Your task to perform on an android device: install app "Life360: Find Family & Friends" Image 0: 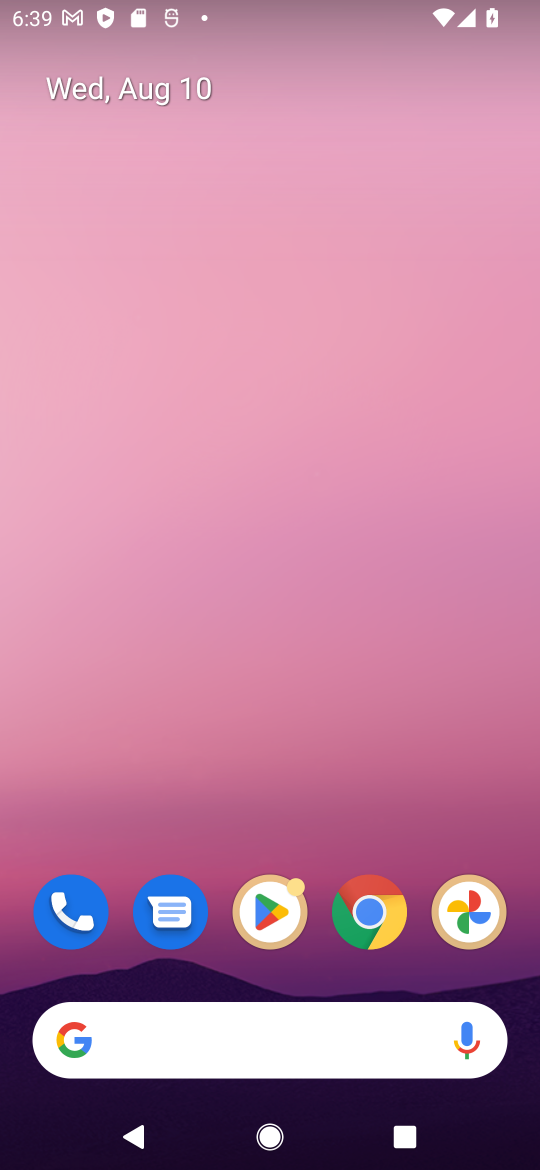
Step 0: drag from (430, 976) to (276, 84)
Your task to perform on an android device: install app "Life360: Find Family & Friends" Image 1: 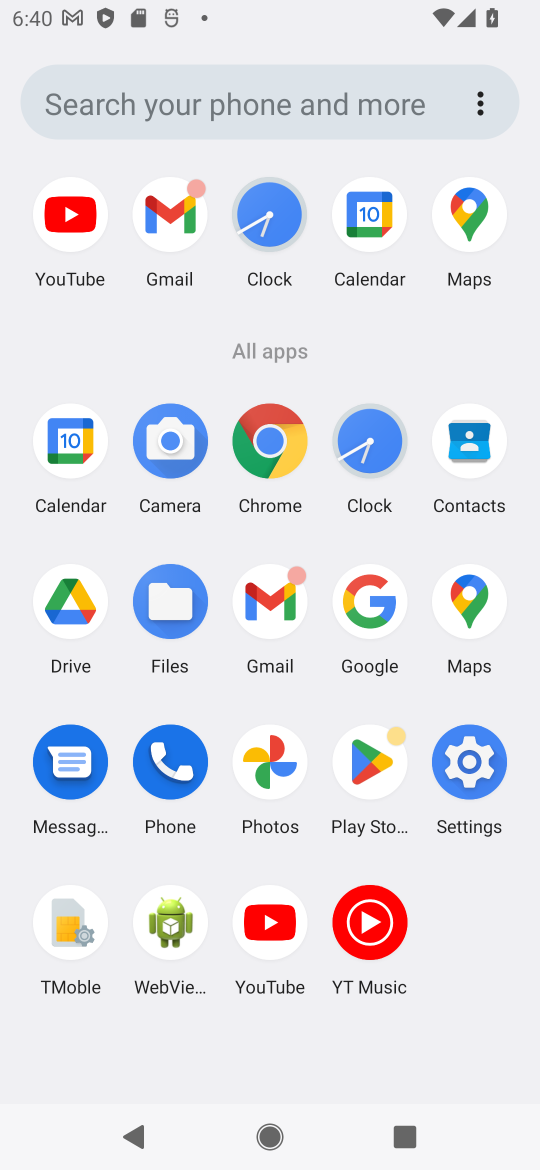
Step 1: click (369, 786)
Your task to perform on an android device: install app "Life360: Find Family & Friends" Image 2: 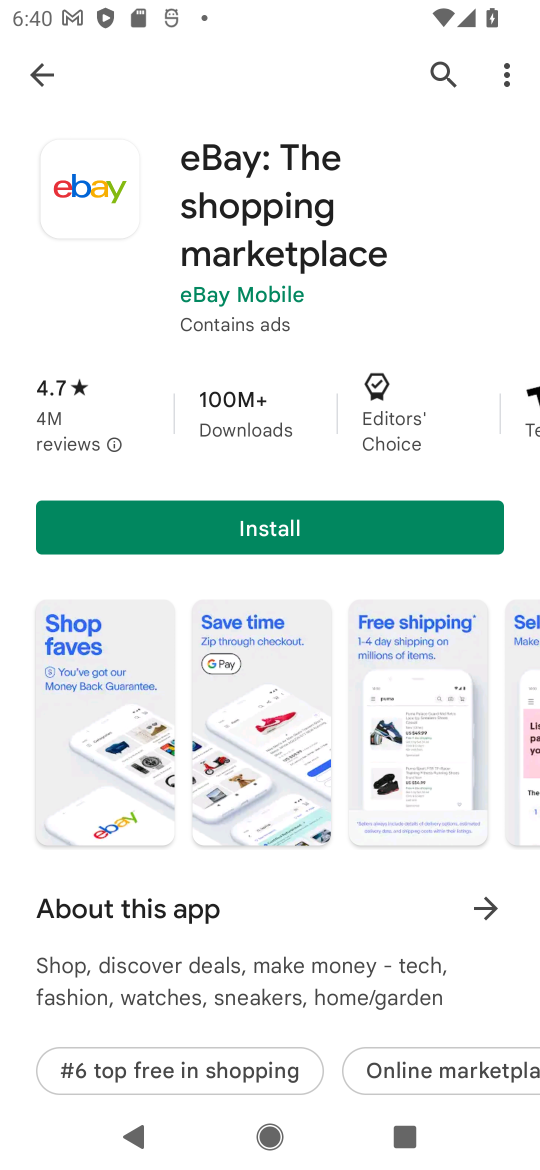
Step 2: press back button
Your task to perform on an android device: install app "Life360: Find Family & Friends" Image 3: 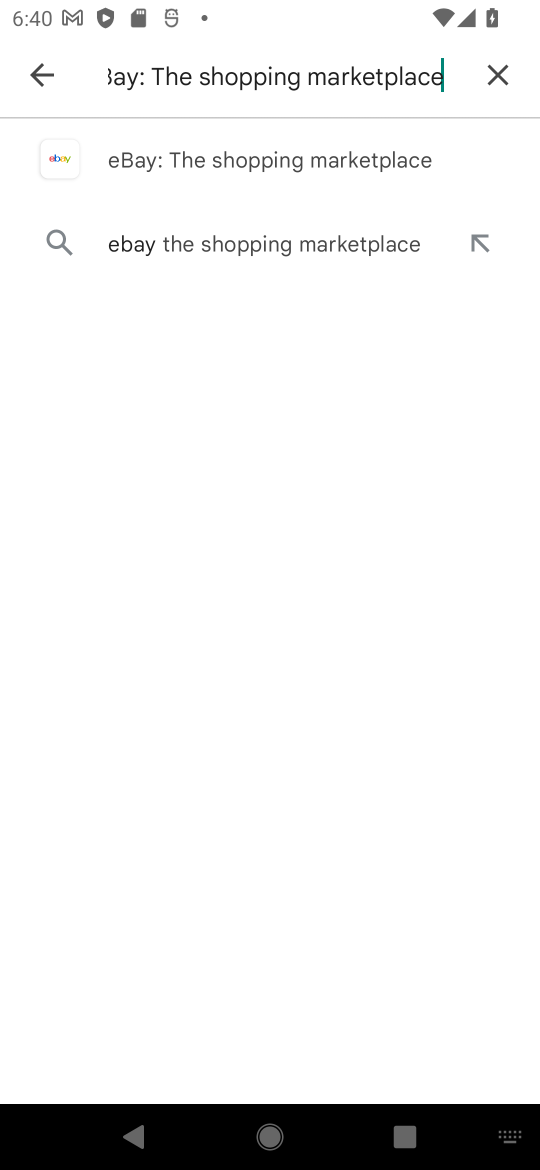
Step 3: click (497, 73)
Your task to perform on an android device: install app "Life360: Find Family & Friends" Image 4: 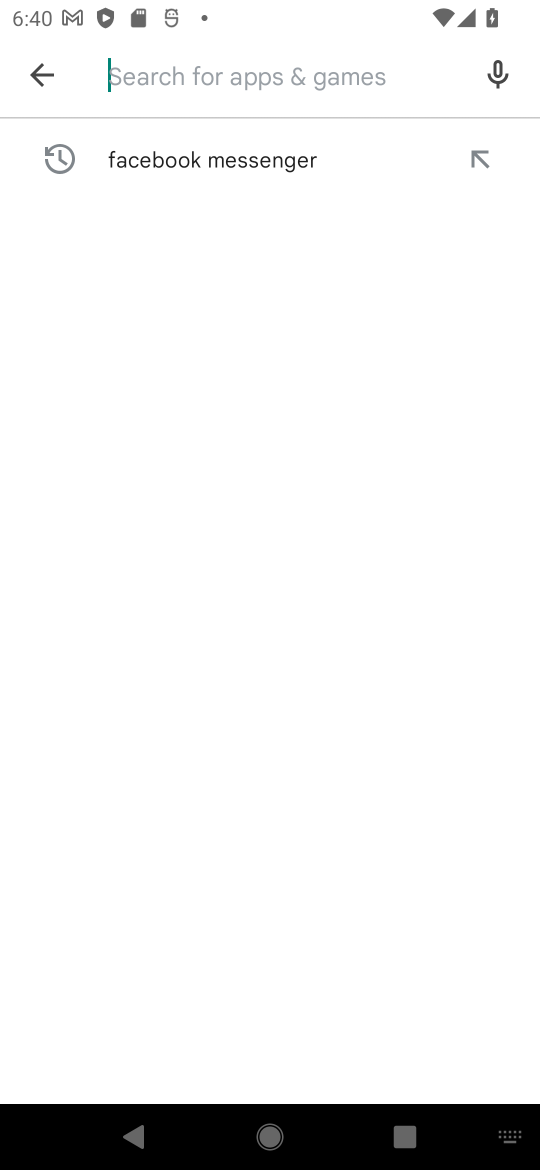
Step 4: click (135, 65)
Your task to perform on an android device: install app "Life360: Find Family & Friends" Image 5: 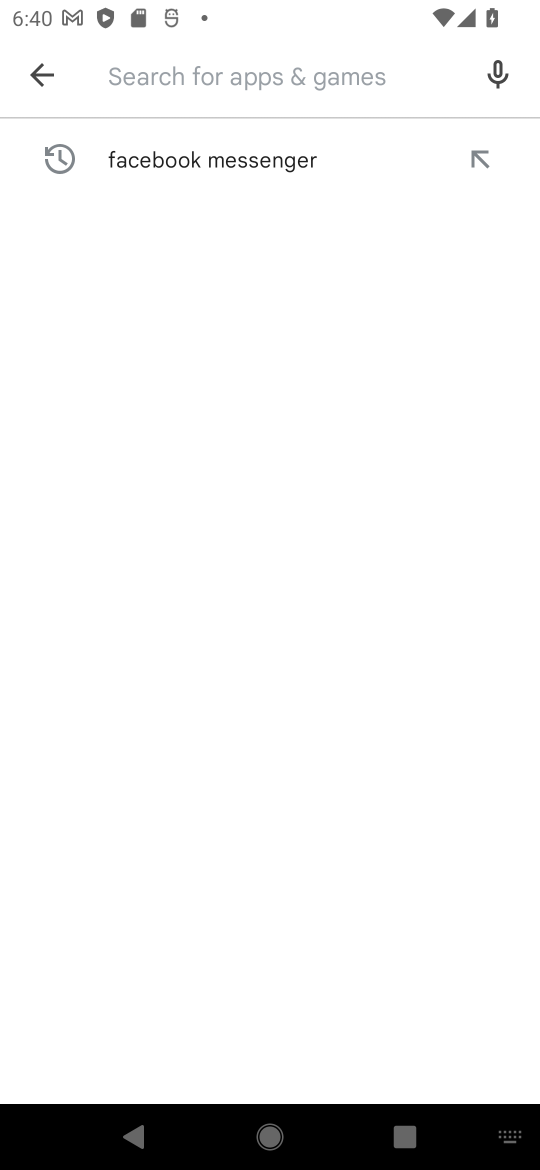
Step 5: type "Life360: Find Family & Friends"
Your task to perform on an android device: install app "Life360: Find Family & Friends" Image 6: 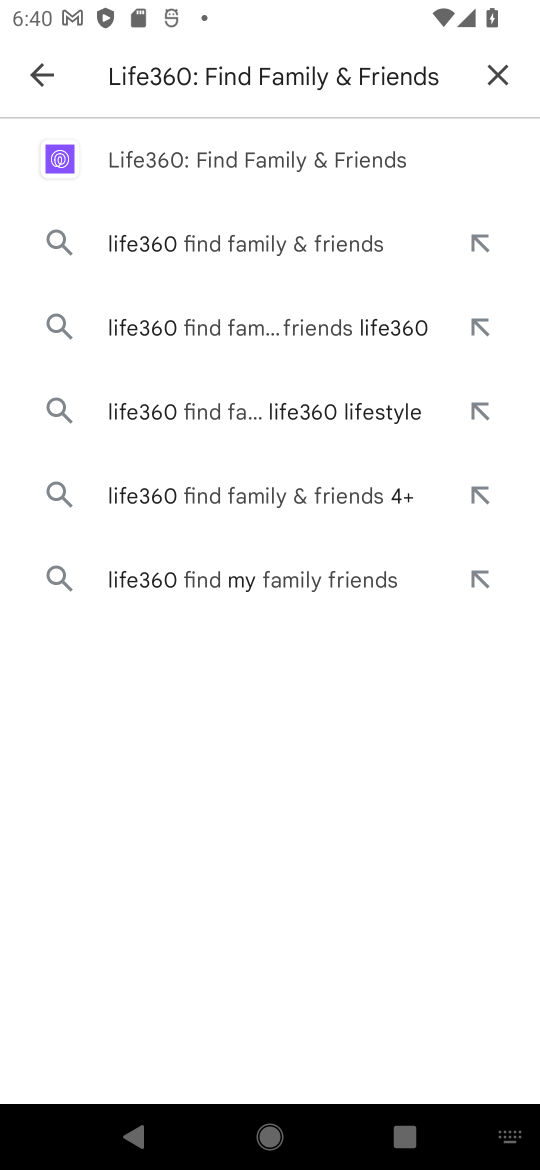
Step 6: click (291, 171)
Your task to perform on an android device: install app "Life360: Find Family & Friends" Image 7: 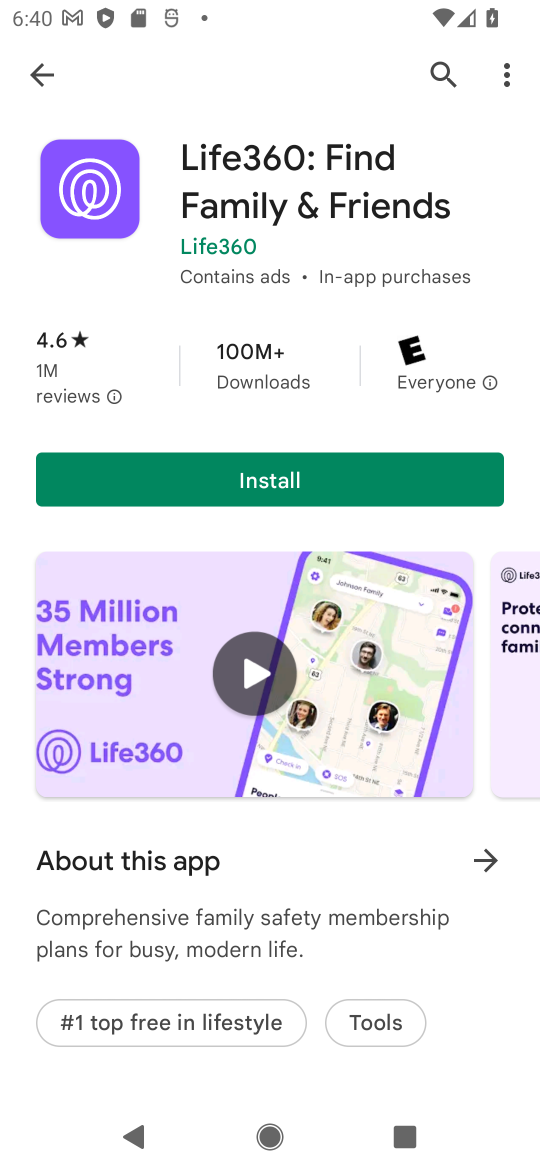
Step 7: click (308, 463)
Your task to perform on an android device: install app "Life360: Find Family & Friends" Image 8: 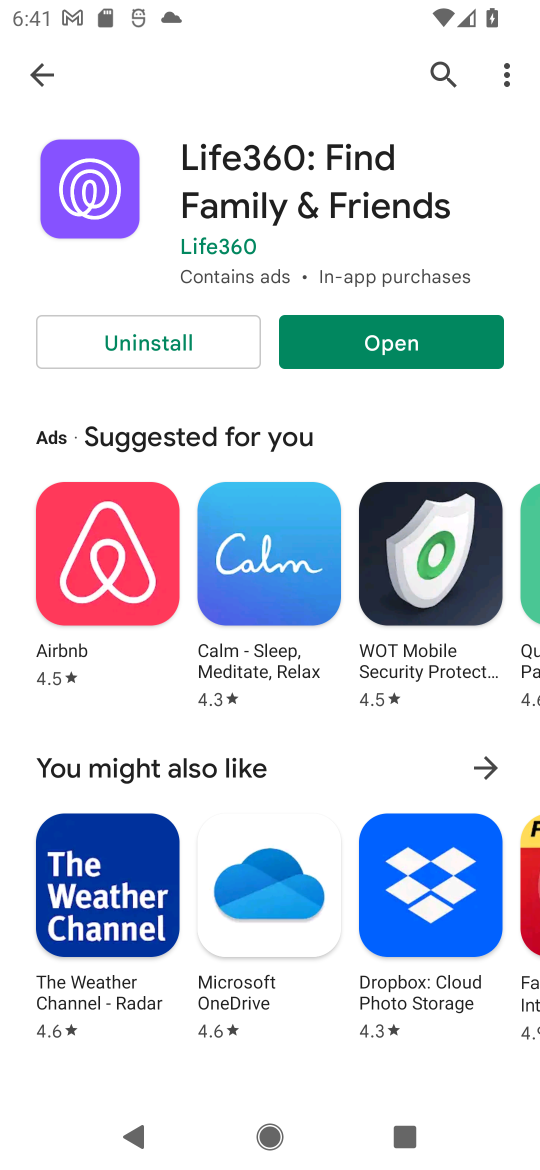
Step 8: task complete